Your task to perform on an android device: Open settings Image 0: 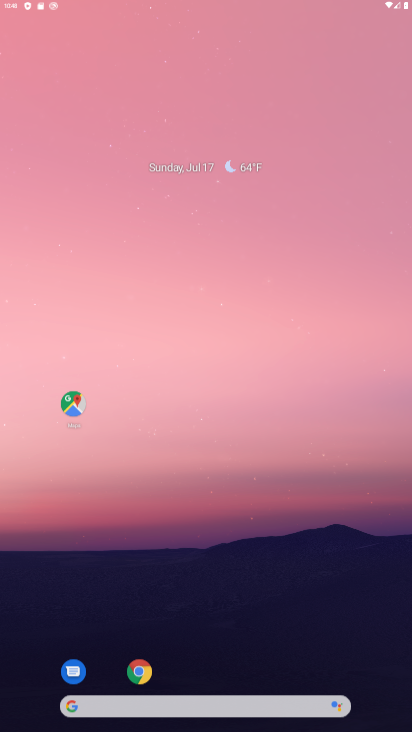
Step 0: click (178, 113)
Your task to perform on an android device: Open settings Image 1: 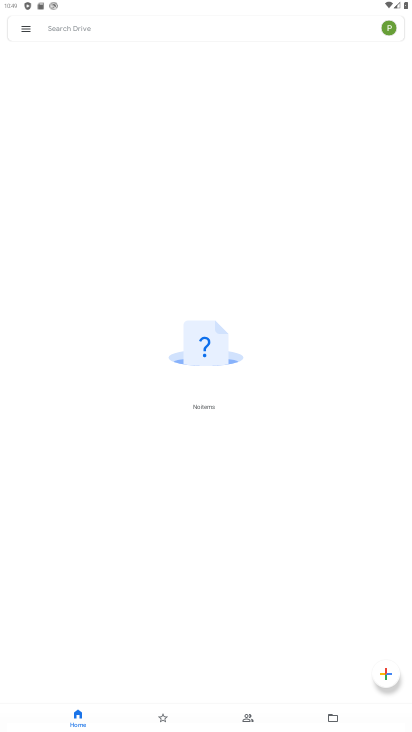
Step 1: press home button
Your task to perform on an android device: Open settings Image 2: 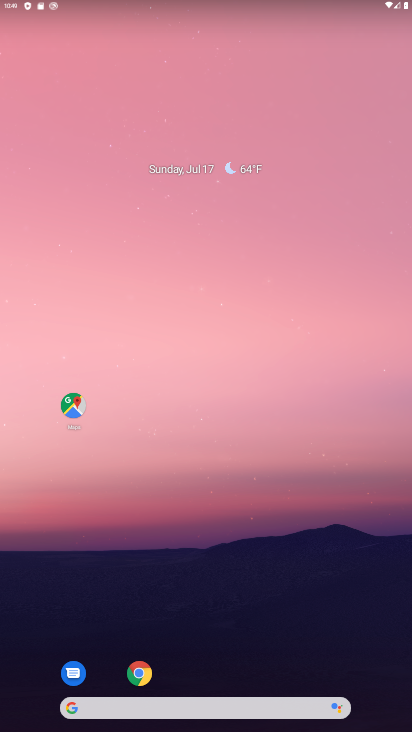
Step 2: drag from (267, 656) to (190, 209)
Your task to perform on an android device: Open settings Image 3: 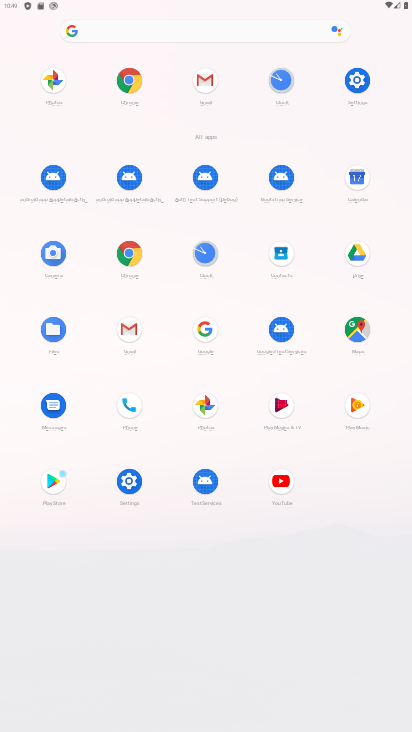
Step 3: click (358, 83)
Your task to perform on an android device: Open settings Image 4: 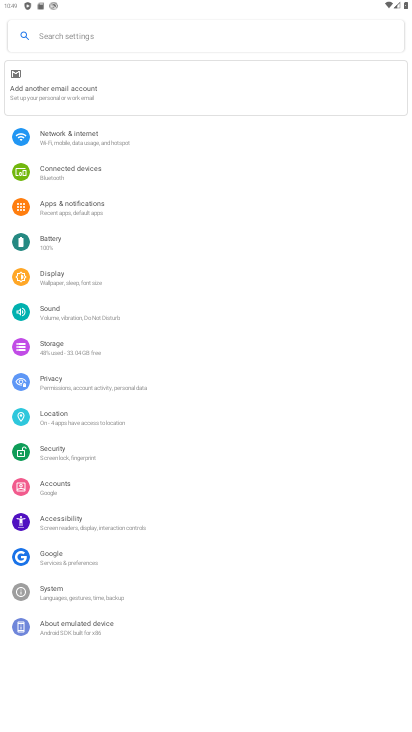
Step 4: task complete